Your task to perform on an android device: Find coffee shops on Maps Image 0: 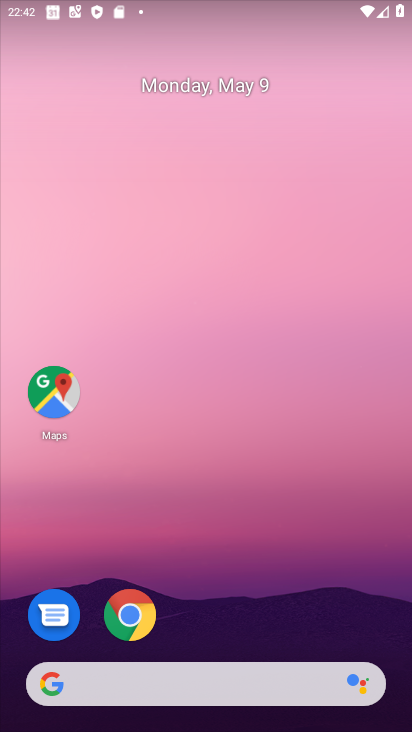
Step 0: click (42, 397)
Your task to perform on an android device: Find coffee shops on Maps Image 1: 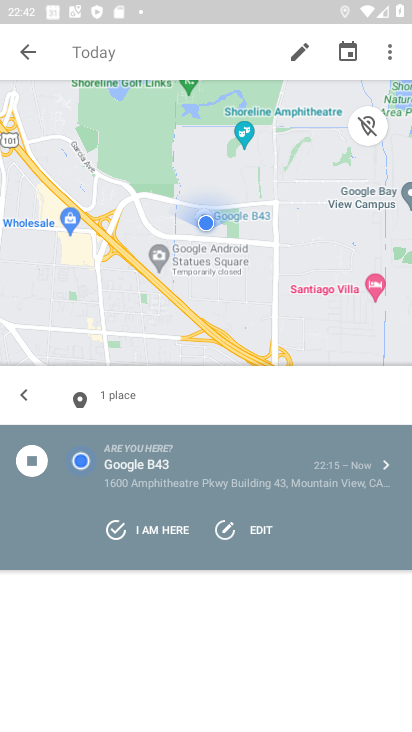
Step 1: click (23, 51)
Your task to perform on an android device: Find coffee shops on Maps Image 2: 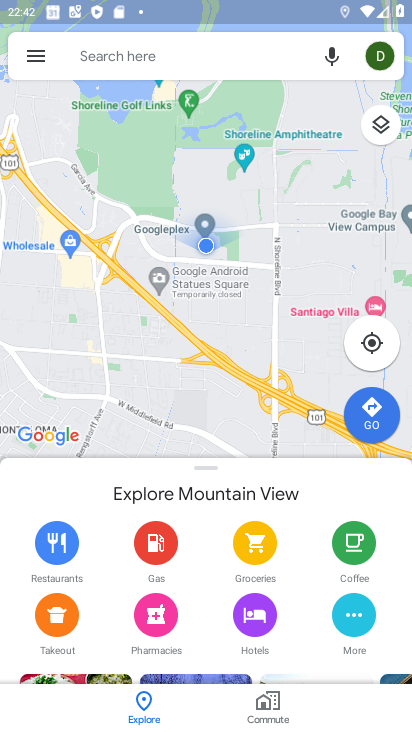
Step 2: click (121, 56)
Your task to perform on an android device: Find coffee shops on Maps Image 3: 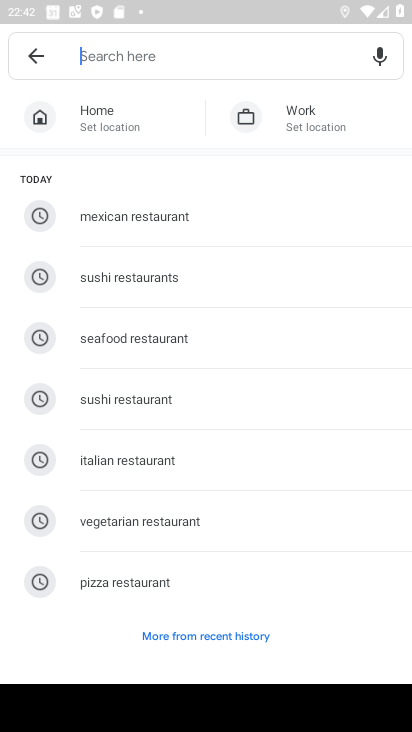
Step 3: type "coffee shops"
Your task to perform on an android device: Find coffee shops on Maps Image 4: 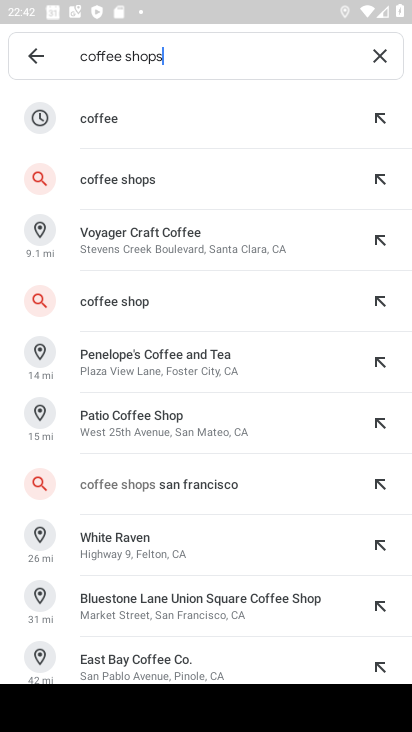
Step 4: click (90, 184)
Your task to perform on an android device: Find coffee shops on Maps Image 5: 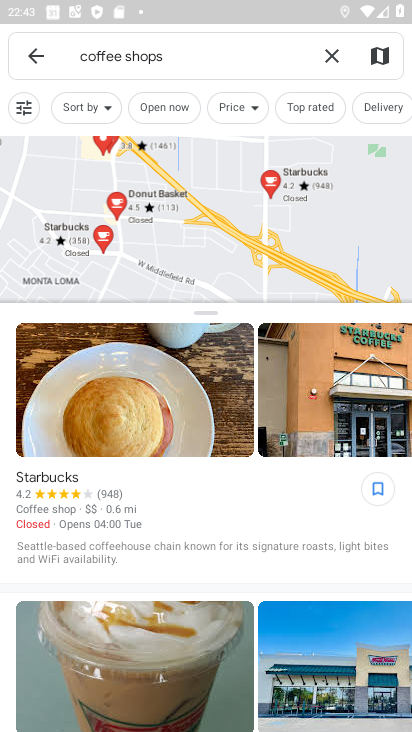
Step 5: task complete